Your task to perform on an android device: Turn on the flashlight Image 0: 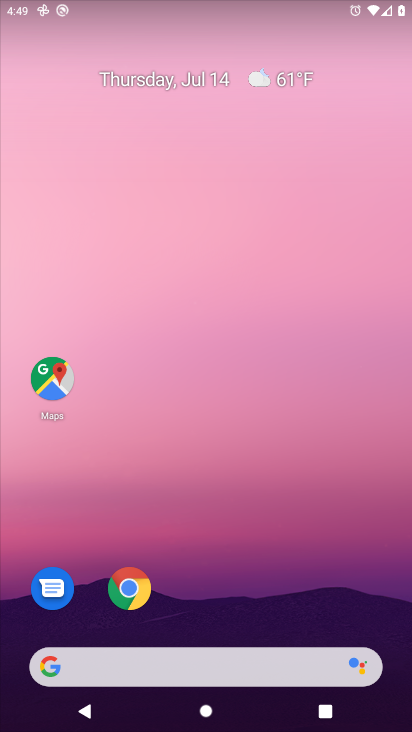
Step 0: press home button
Your task to perform on an android device: Turn on the flashlight Image 1: 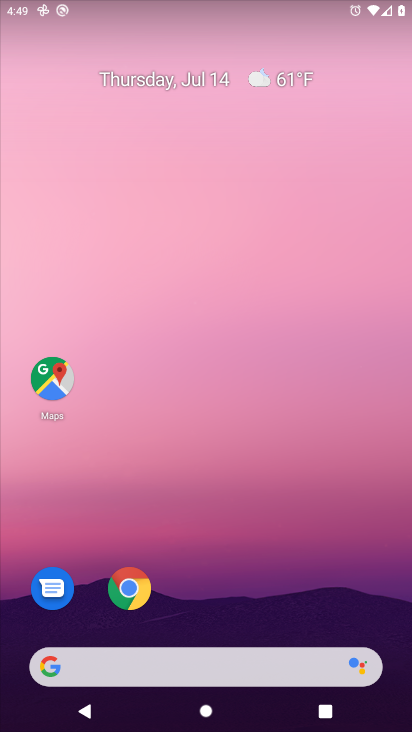
Step 1: task complete